Your task to perform on an android device: Open Google Chrome Image 0: 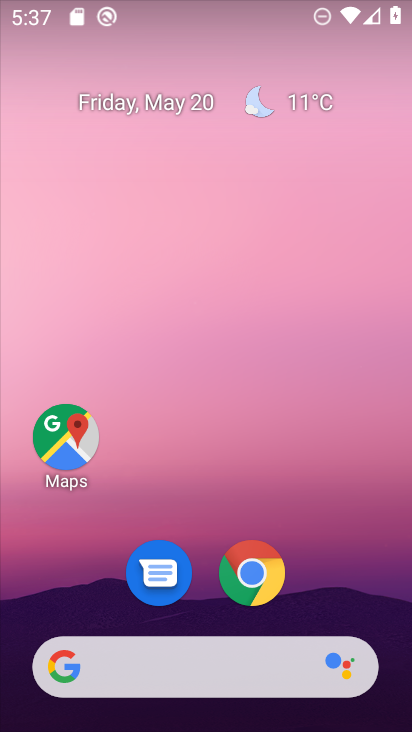
Step 0: click (248, 565)
Your task to perform on an android device: Open Google Chrome Image 1: 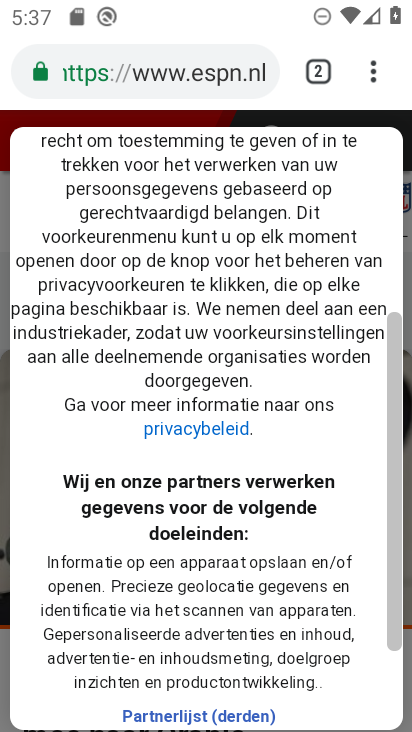
Step 1: task complete